Your task to perform on an android device: Go to Yahoo.com Image 0: 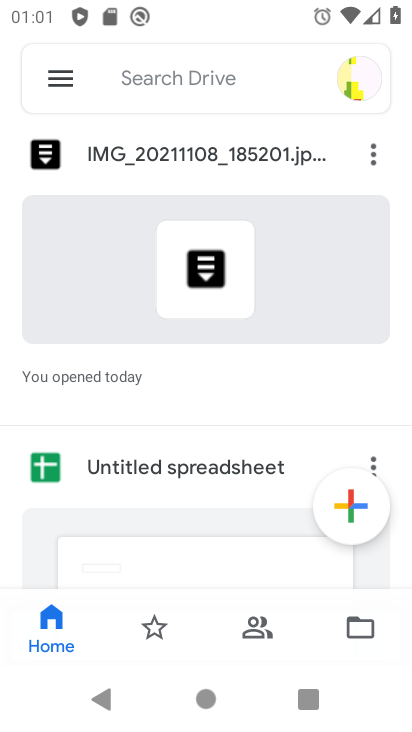
Step 0: press home button
Your task to perform on an android device: Go to Yahoo.com Image 1: 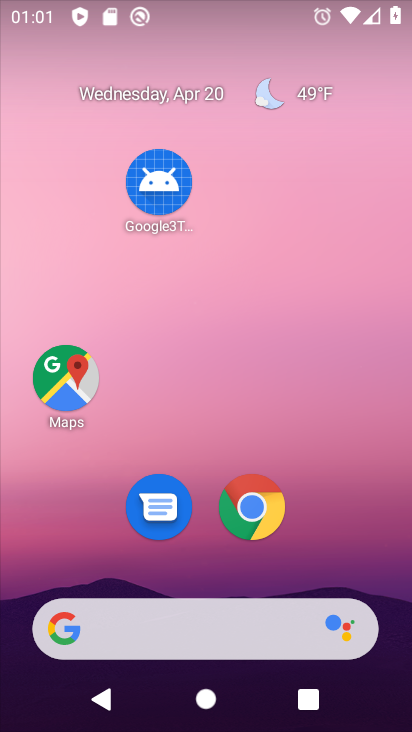
Step 1: click (245, 514)
Your task to perform on an android device: Go to Yahoo.com Image 2: 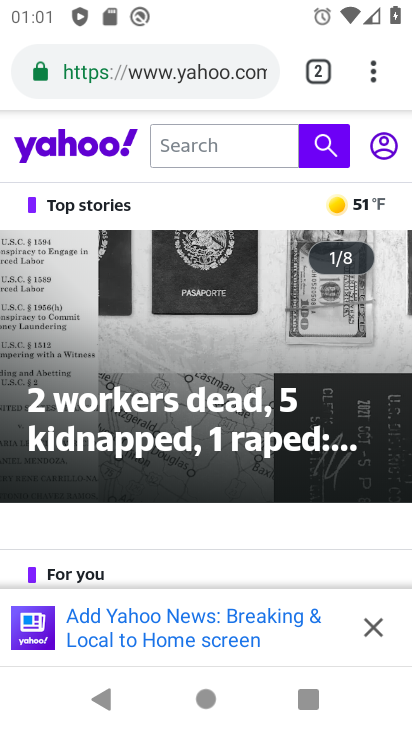
Step 2: task complete